Your task to perform on an android device: Search for hotels in Zurich Image 0: 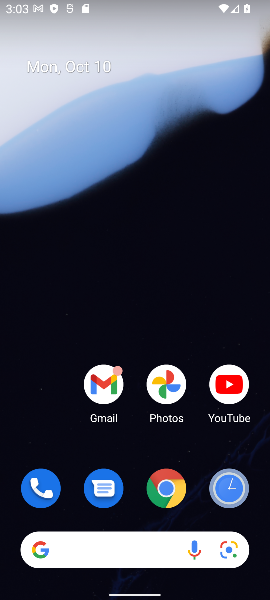
Step 0: drag from (80, 427) to (153, 17)
Your task to perform on an android device: Search for hotels in Zurich Image 1: 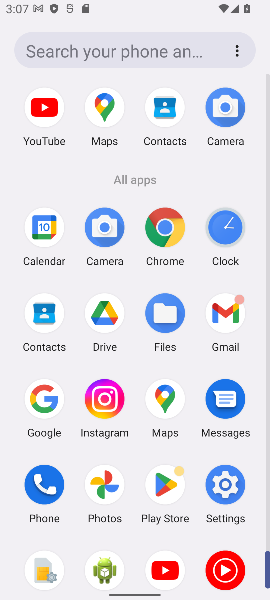
Step 1: drag from (144, 525) to (157, 313)
Your task to perform on an android device: Search for hotels in Zurich Image 2: 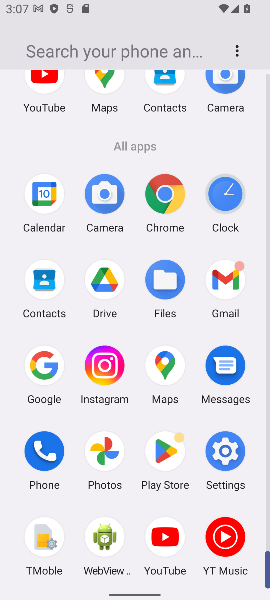
Step 2: click (51, 369)
Your task to perform on an android device: Search for hotels in Zurich Image 3: 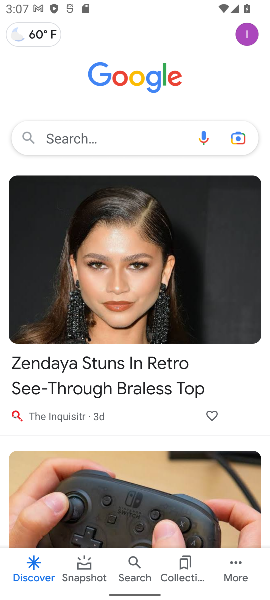
Step 3: click (98, 141)
Your task to perform on an android device: Search for hotels in Zurich Image 4: 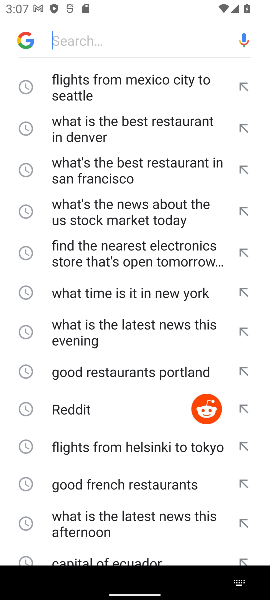
Step 4: click (105, 41)
Your task to perform on an android device: Search for hotels in Zurich Image 5: 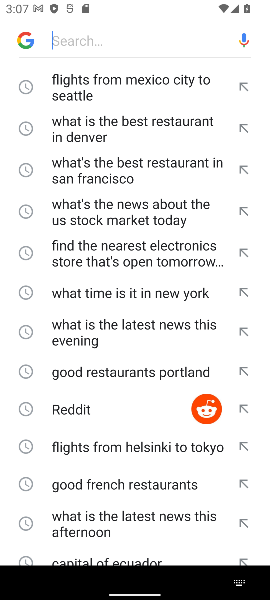
Step 5: type "Search for hotels in Zurich"
Your task to perform on an android device: Search for hotels in Zurich Image 6: 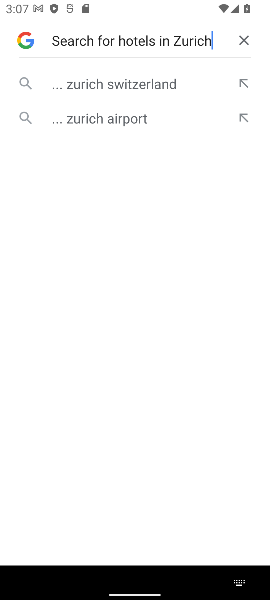
Step 6: click (157, 87)
Your task to perform on an android device: Search for hotels in Zurich Image 7: 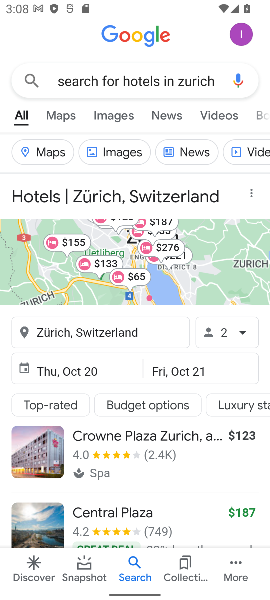
Step 7: task complete